Your task to perform on an android device: Open maps Image 0: 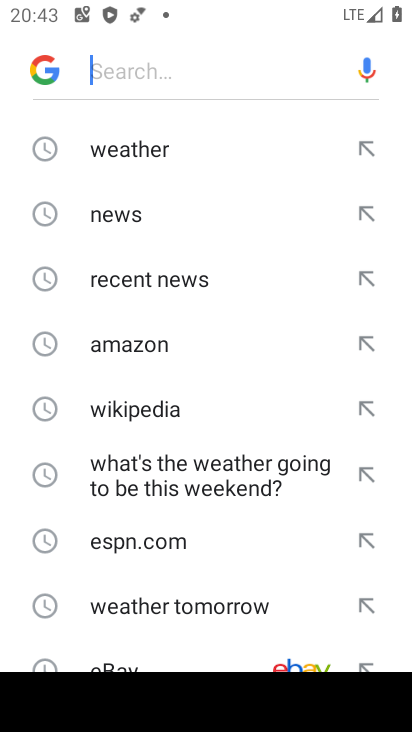
Step 0: press home button
Your task to perform on an android device: Open maps Image 1: 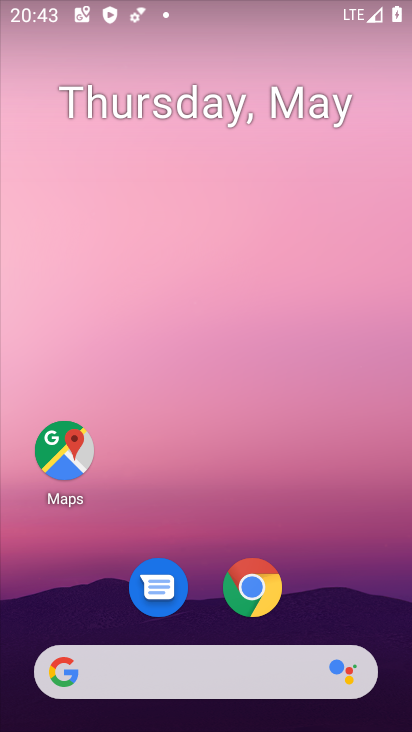
Step 1: click (51, 454)
Your task to perform on an android device: Open maps Image 2: 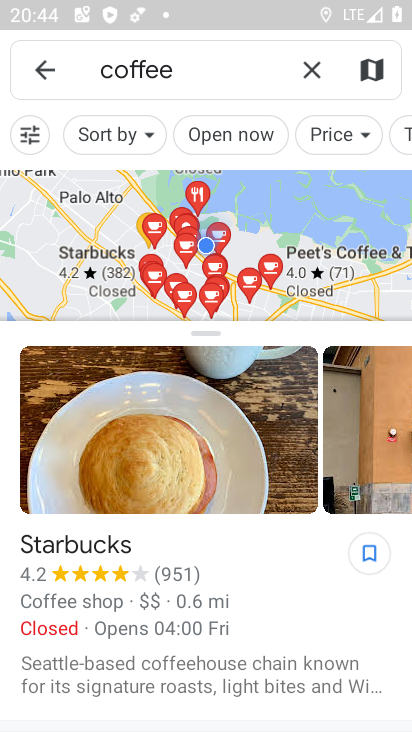
Step 2: task complete